Your task to perform on an android device: change your default location settings in chrome Image 0: 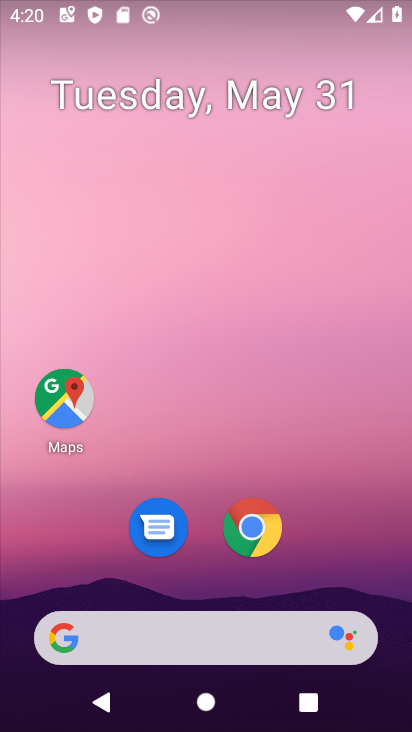
Step 0: drag from (342, 540) to (221, 15)
Your task to perform on an android device: change your default location settings in chrome Image 1: 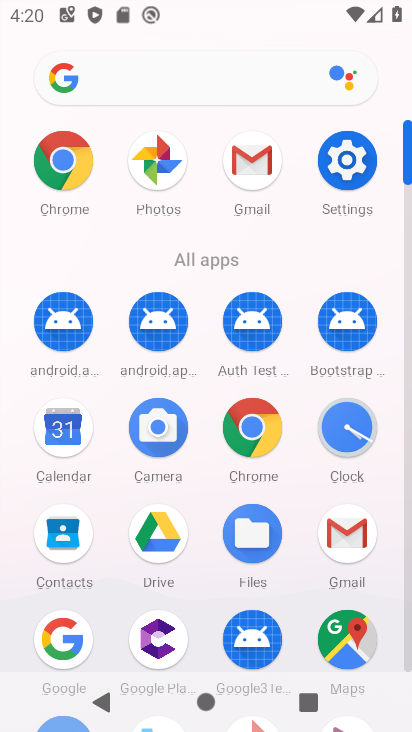
Step 1: drag from (0, 521) to (0, 238)
Your task to perform on an android device: change your default location settings in chrome Image 2: 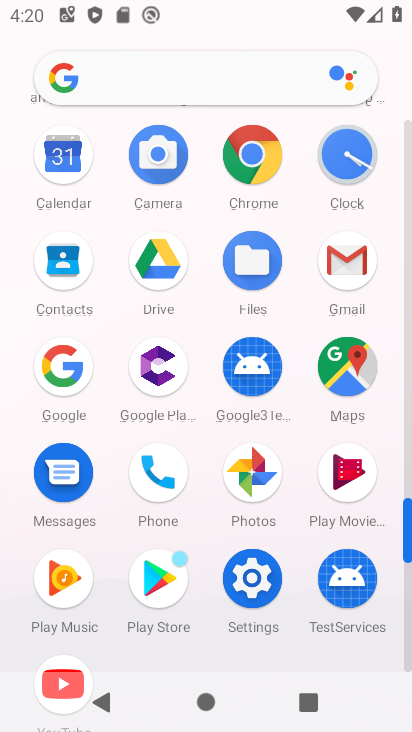
Step 2: click (252, 154)
Your task to perform on an android device: change your default location settings in chrome Image 3: 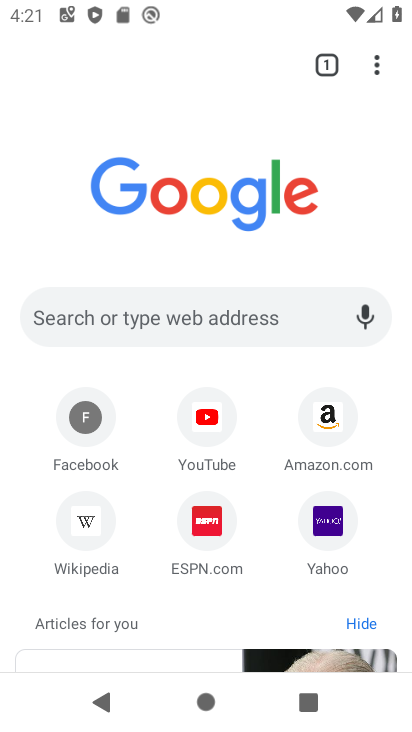
Step 3: drag from (371, 60) to (143, 535)
Your task to perform on an android device: change your default location settings in chrome Image 4: 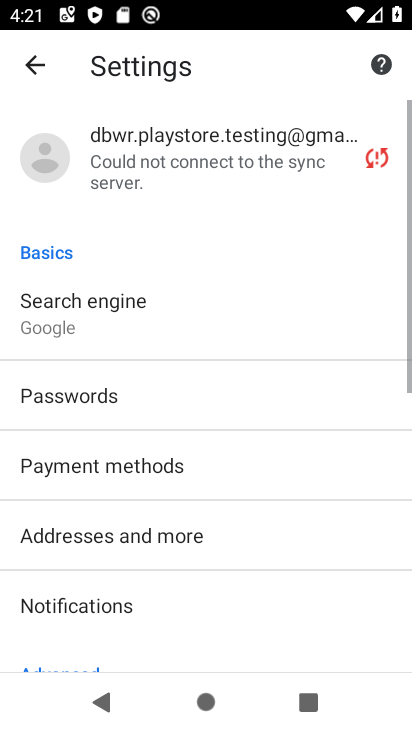
Step 4: drag from (277, 612) to (238, 122)
Your task to perform on an android device: change your default location settings in chrome Image 5: 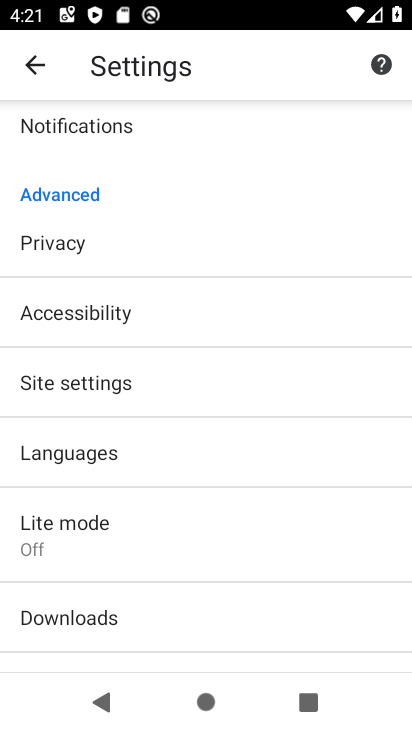
Step 5: drag from (234, 542) to (234, 143)
Your task to perform on an android device: change your default location settings in chrome Image 6: 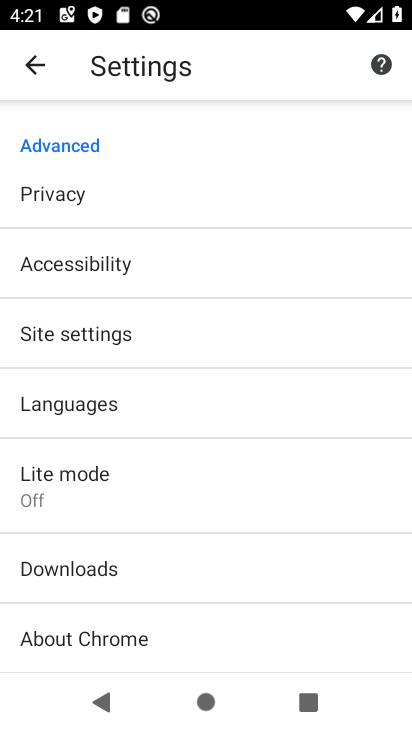
Step 6: click (107, 323)
Your task to perform on an android device: change your default location settings in chrome Image 7: 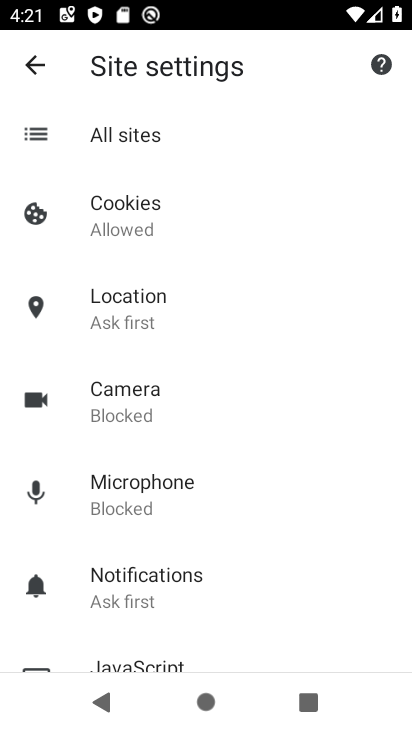
Step 7: click (149, 310)
Your task to perform on an android device: change your default location settings in chrome Image 8: 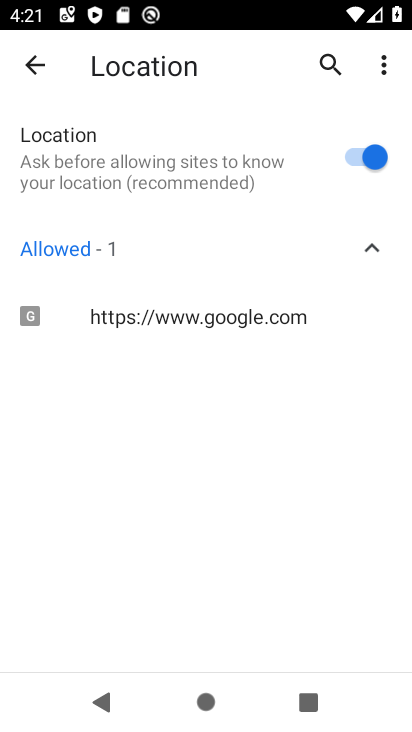
Step 8: click (370, 154)
Your task to perform on an android device: change your default location settings in chrome Image 9: 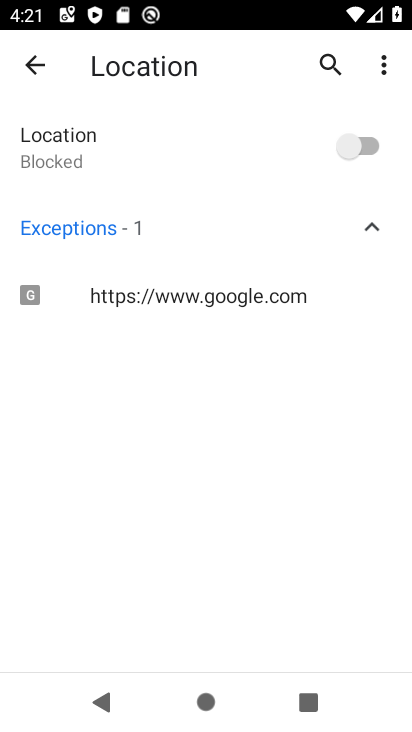
Step 9: task complete